Your task to perform on an android device: install app "LinkedIn" Image 0: 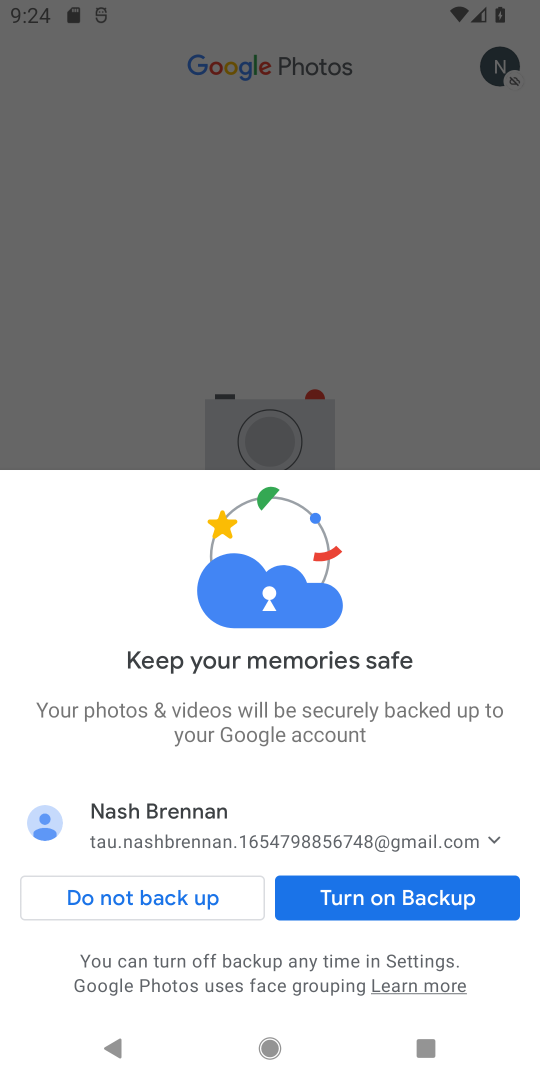
Step 0: press home button
Your task to perform on an android device: install app "LinkedIn" Image 1: 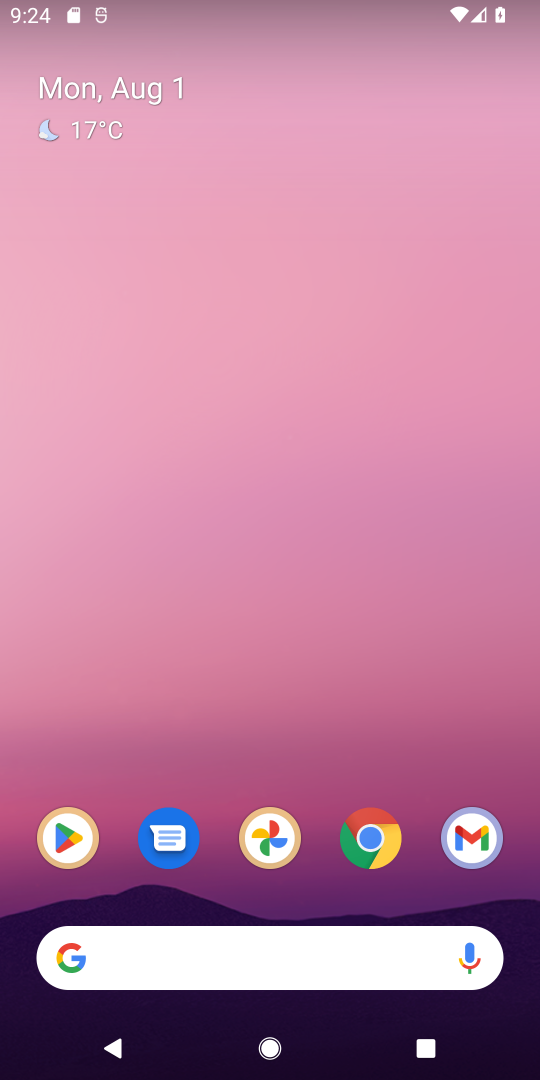
Step 1: click (36, 832)
Your task to perform on an android device: install app "LinkedIn" Image 2: 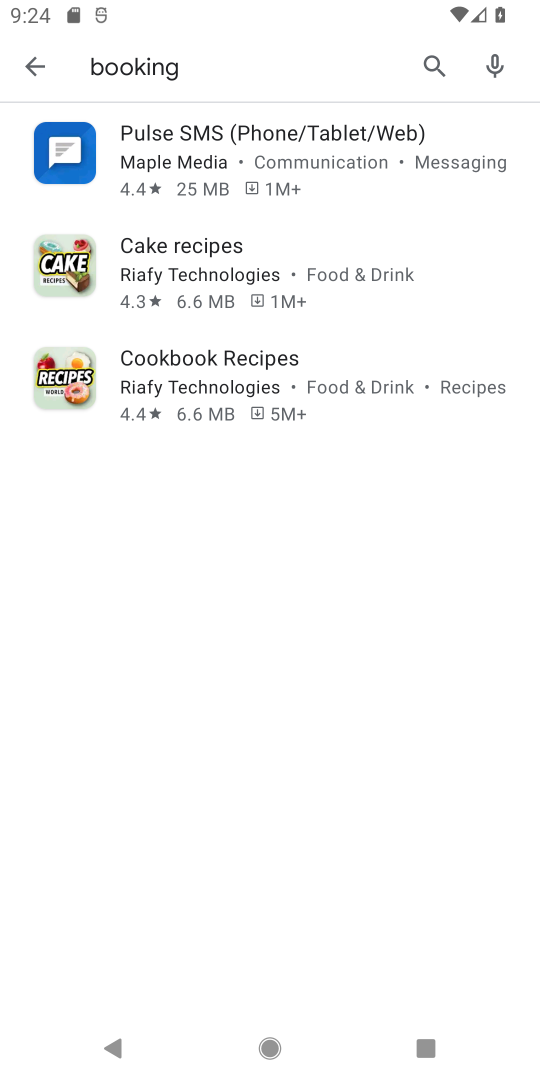
Step 2: click (426, 65)
Your task to perform on an android device: install app "LinkedIn" Image 3: 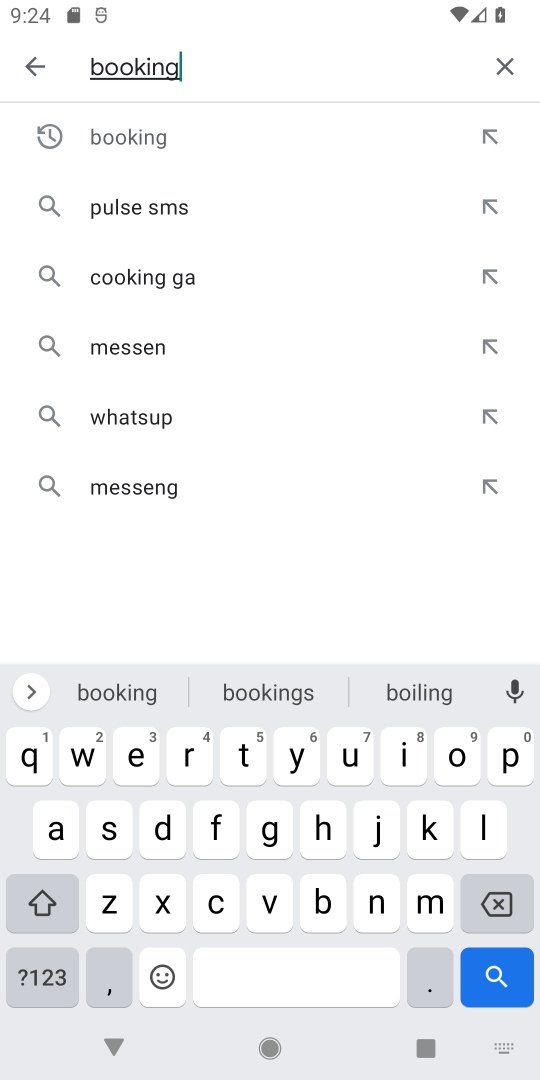
Step 3: click (506, 65)
Your task to perform on an android device: install app "LinkedIn" Image 4: 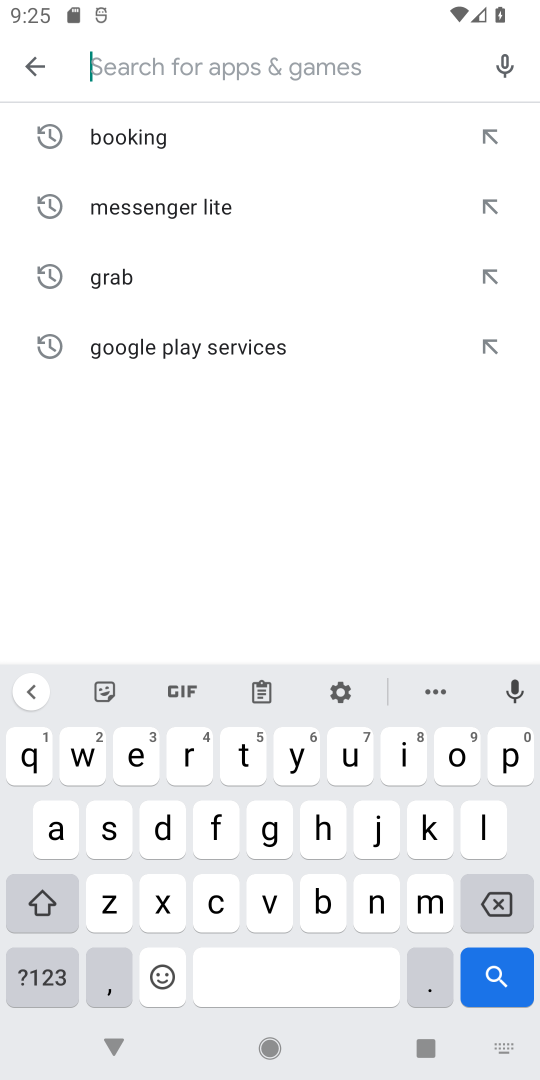
Step 4: click (482, 828)
Your task to perform on an android device: install app "LinkedIn" Image 5: 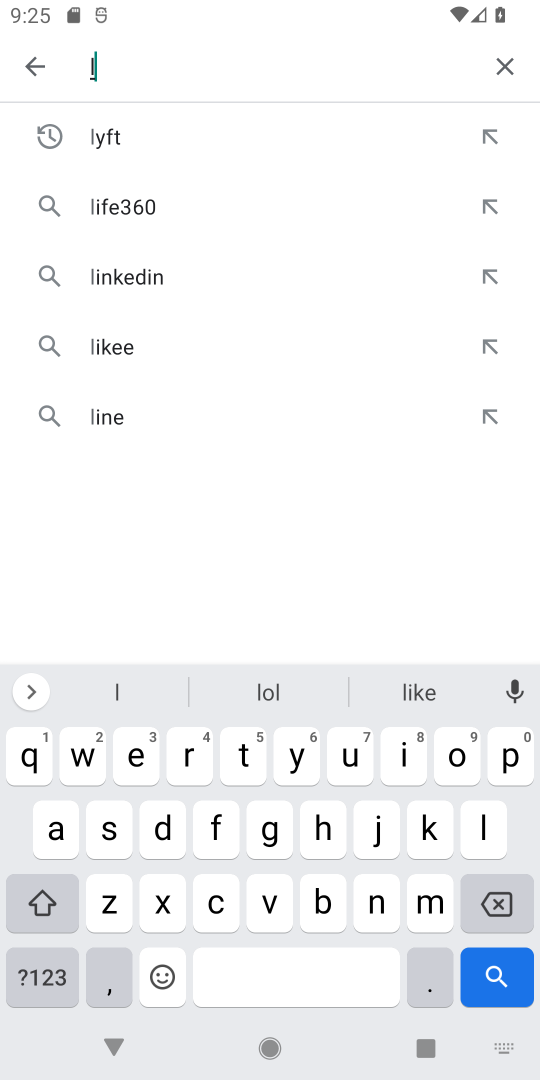
Step 5: click (396, 749)
Your task to perform on an android device: install app "LinkedIn" Image 6: 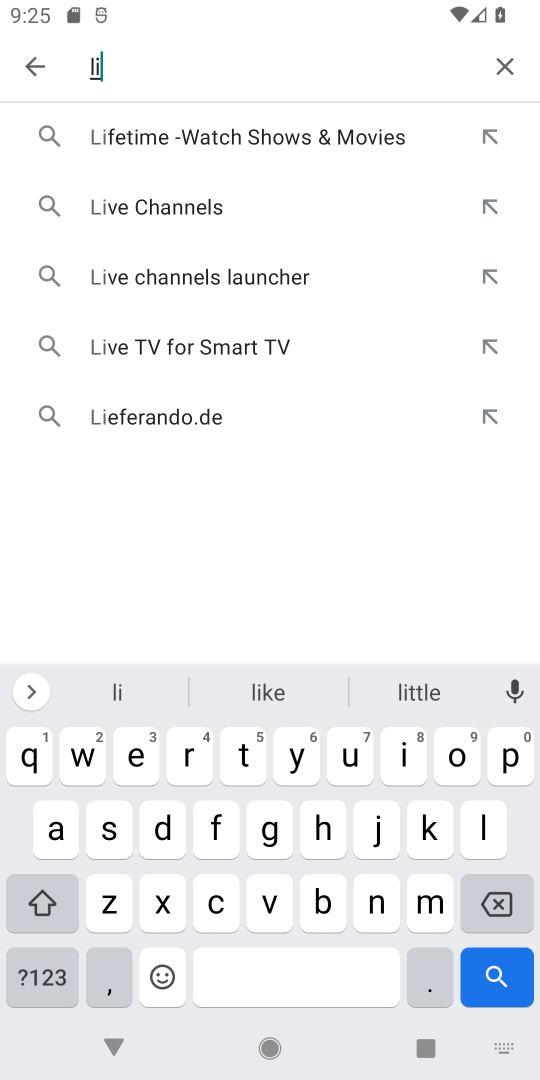
Step 6: click (376, 911)
Your task to perform on an android device: install app "LinkedIn" Image 7: 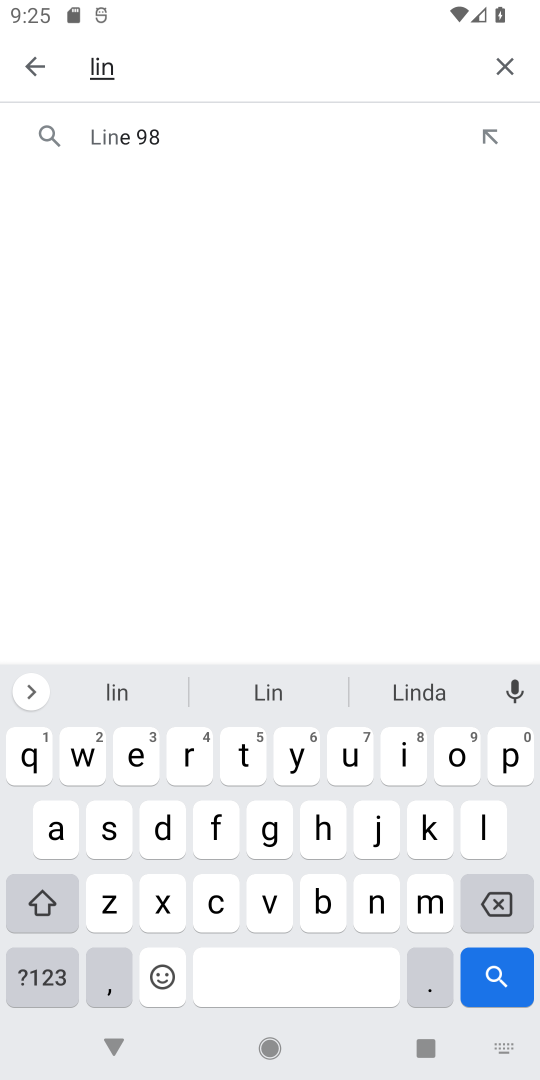
Step 7: click (421, 827)
Your task to perform on an android device: install app "LinkedIn" Image 8: 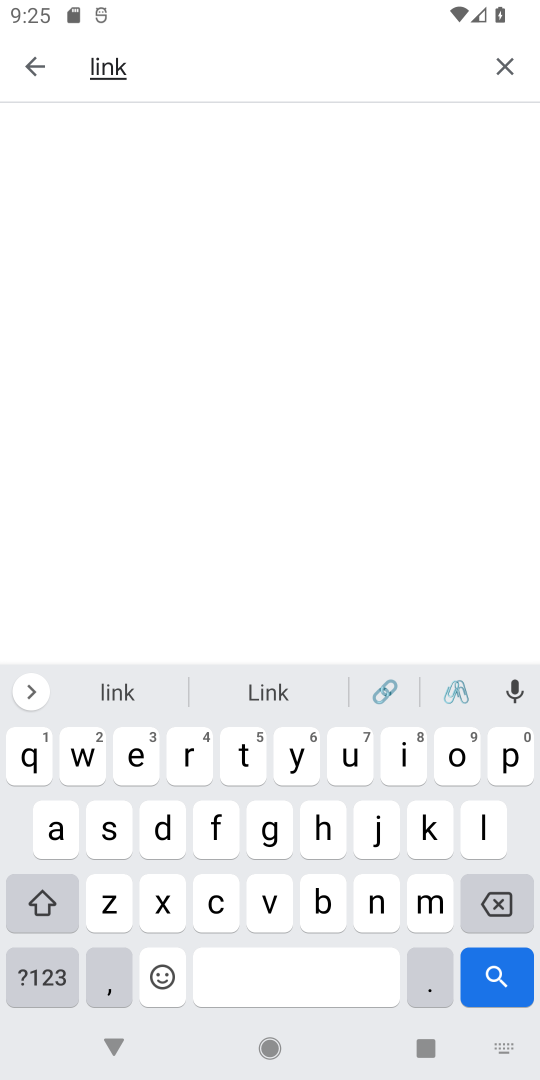
Step 8: click (130, 765)
Your task to perform on an android device: install app "LinkedIn" Image 9: 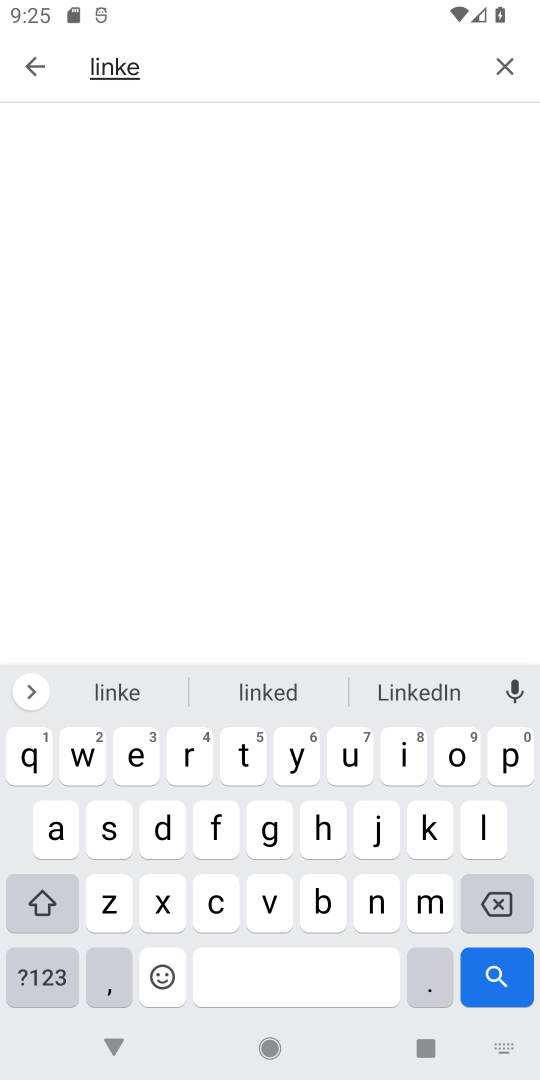
Step 9: click (162, 832)
Your task to perform on an android device: install app "LinkedIn" Image 10: 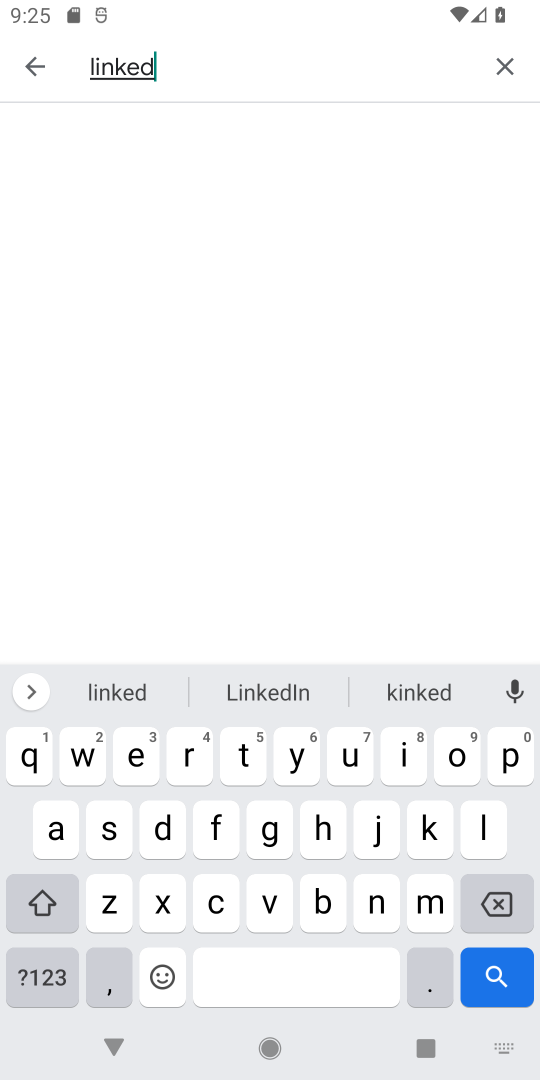
Step 10: click (285, 689)
Your task to perform on an android device: install app "LinkedIn" Image 11: 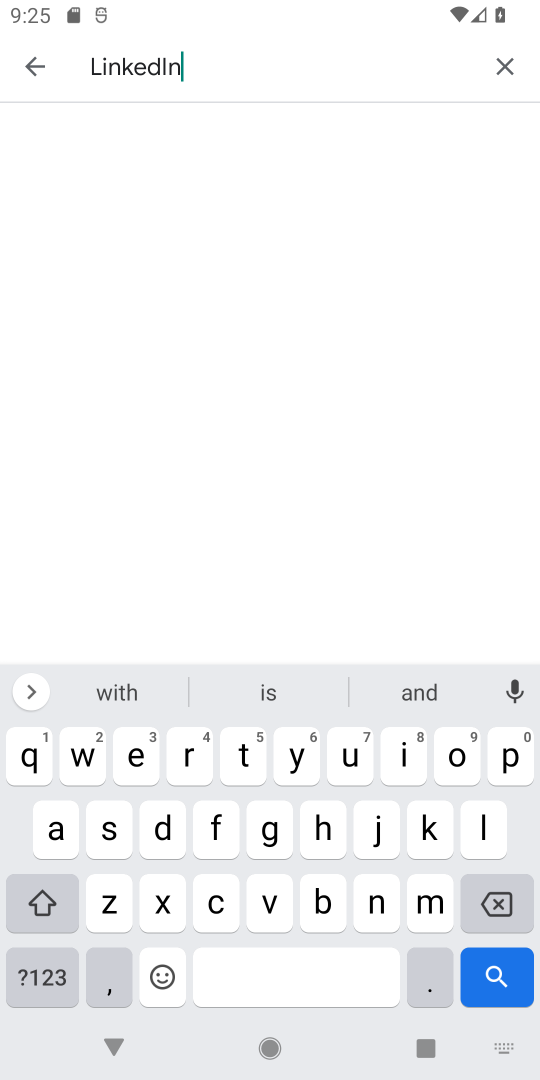
Step 11: click (489, 978)
Your task to perform on an android device: install app "LinkedIn" Image 12: 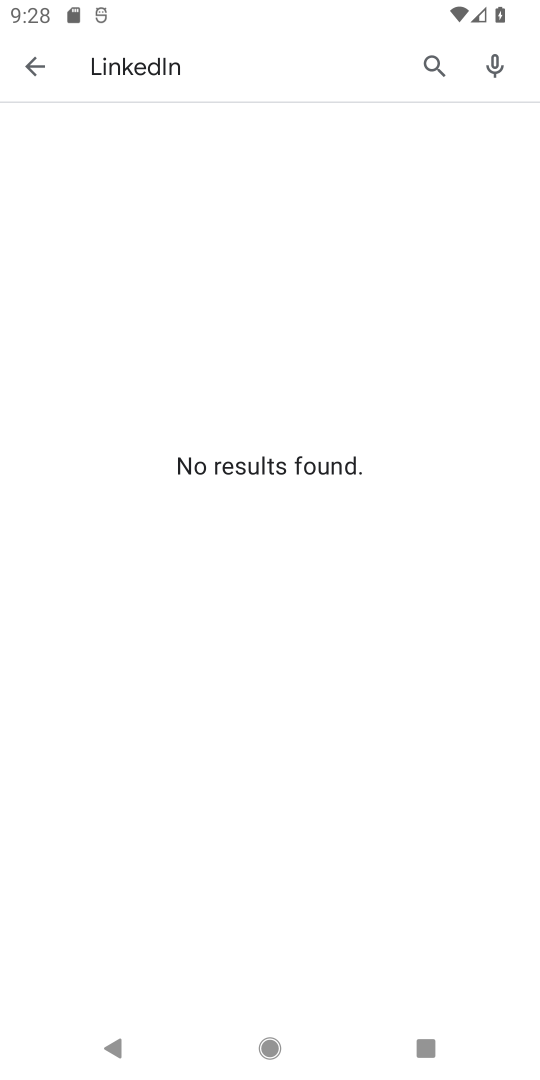
Step 12: task complete